Your task to perform on an android device: Go to accessibility settings Image 0: 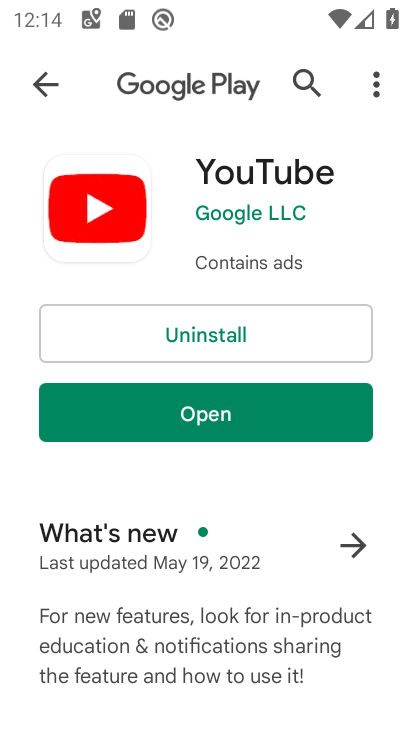
Step 0: press home button
Your task to perform on an android device: Go to accessibility settings Image 1: 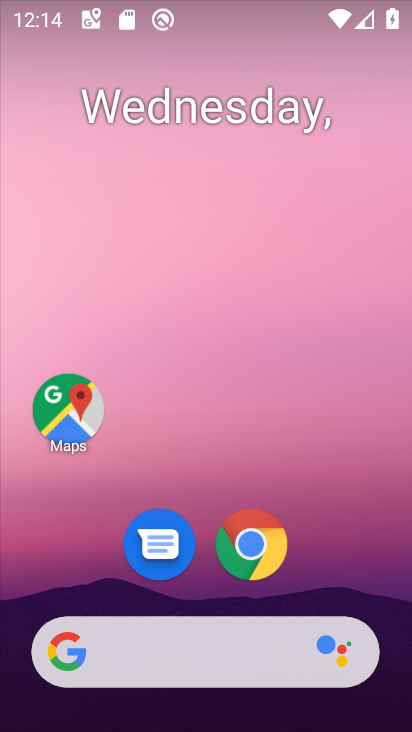
Step 1: drag from (176, 390) to (204, 113)
Your task to perform on an android device: Go to accessibility settings Image 2: 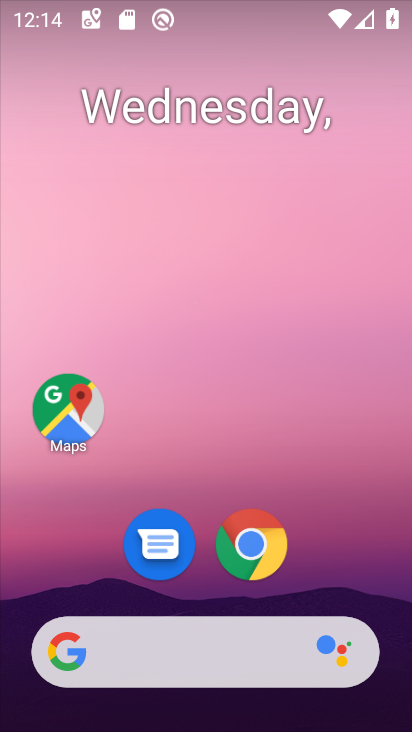
Step 2: drag from (250, 442) to (283, 13)
Your task to perform on an android device: Go to accessibility settings Image 3: 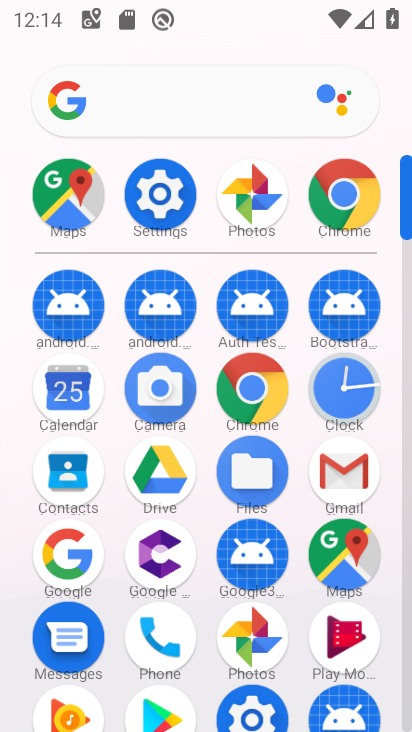
Step 3: drag from (211, 256) to (218, 149)
Your task to perform on an android device: Go to accessibility settings Image 4: 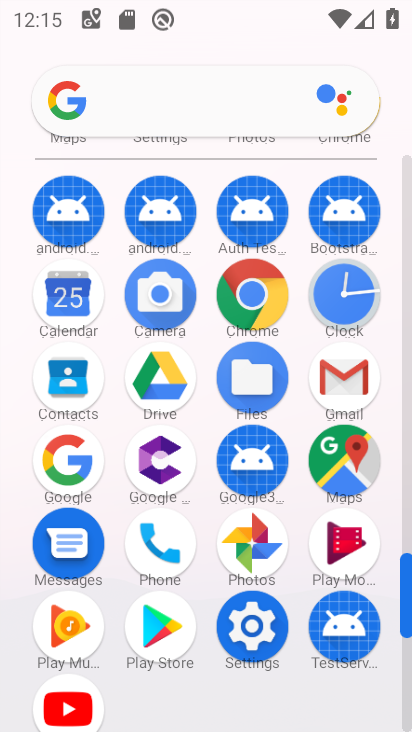
Step 4: click (273, 620)
Your task to perform on an android device: Go to accessibility settings Image 5: 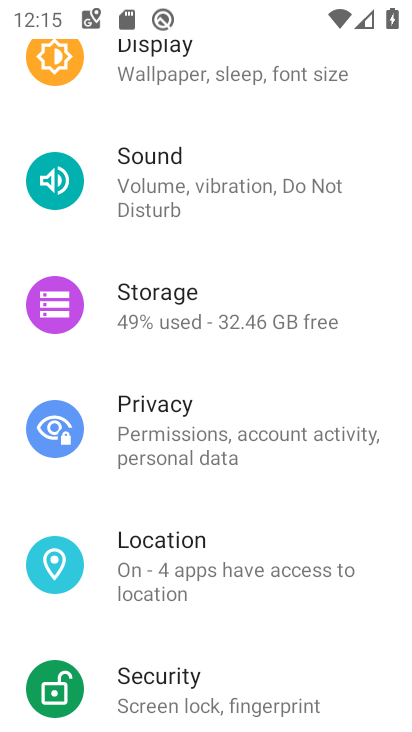
Step 5: drag from (218, 470) to (194, 158)
Your task to perform on an android device: Go to accessibility settings Image 6: 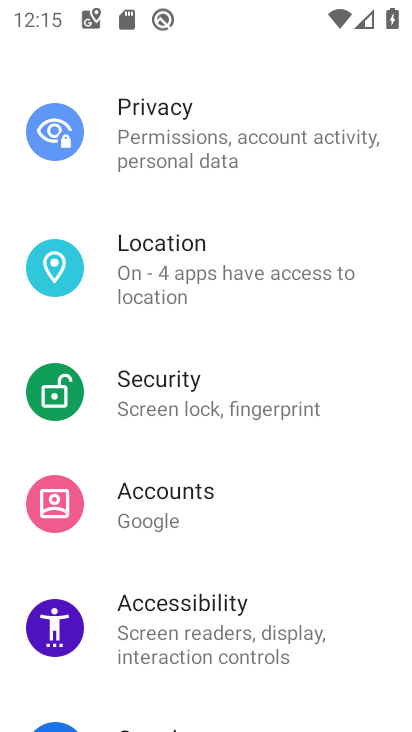
Step 6: click (178, 639)
Your task to perform on an android device: Go to accessibility settings Image 7: 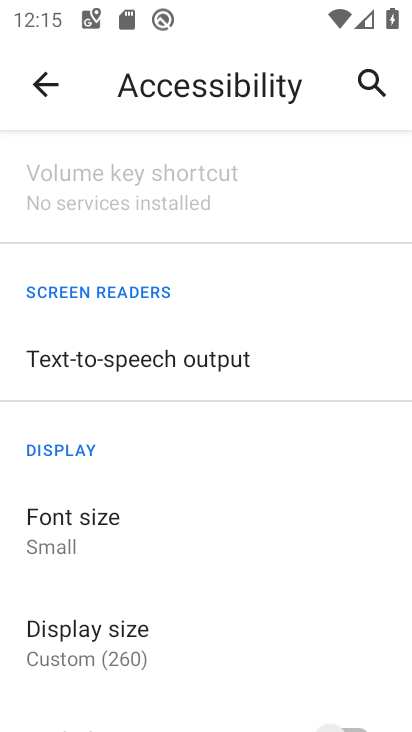
Step 7: task complete